Your task to perform on an android device: allow cookies in the chrome app Image 0: 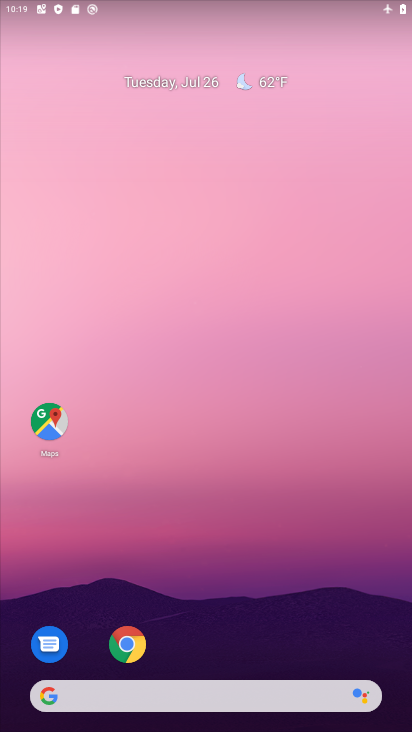
Step 0: click (142, 650)
Your task to perform on an android device: allow cookies in the chrome app Image 1: 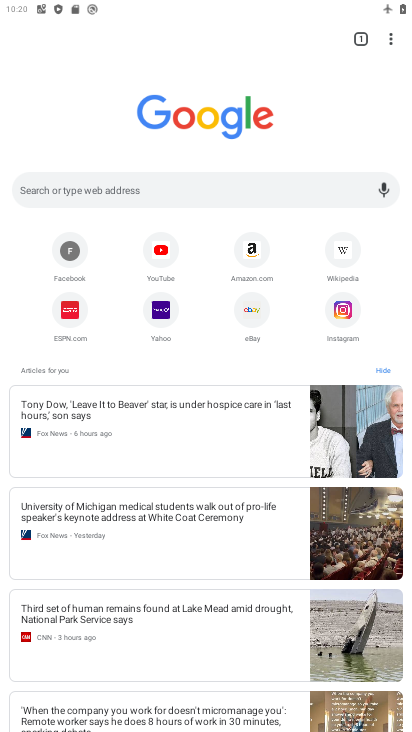
Step 1: drag from (392, 36) to (259, 334)
Your task to perform on an android device: allow cookies in the chrome app Image 2: 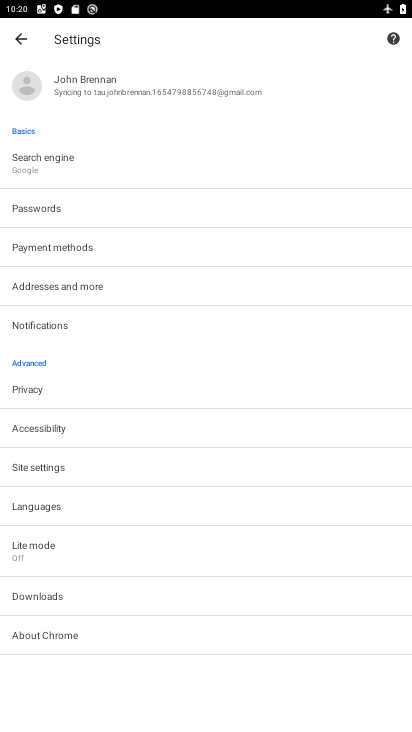
Step 2: click (44, 473)
Your task to perform on an android device: allow cookies in the chrome app Image 3: 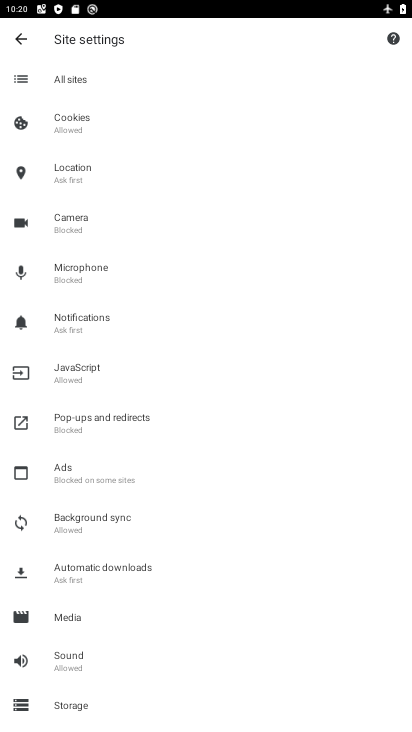
Step 3: click (86, 132)
Your task to perform on an android device: allow cookies in the chrome app Image 4: 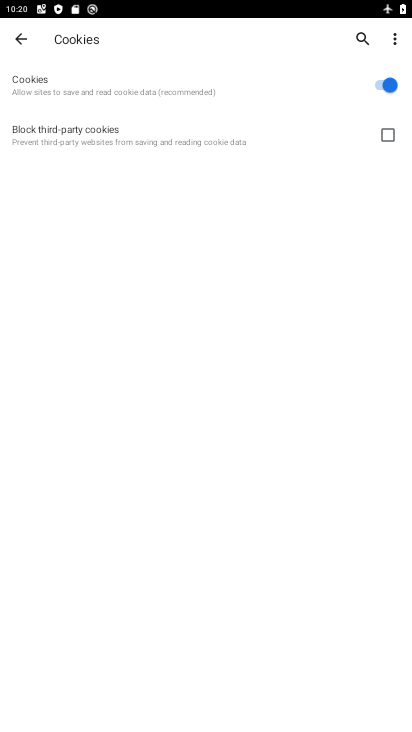
Step 4: task complete